Your task to perform on an android device: open app "Messages" Image 0: 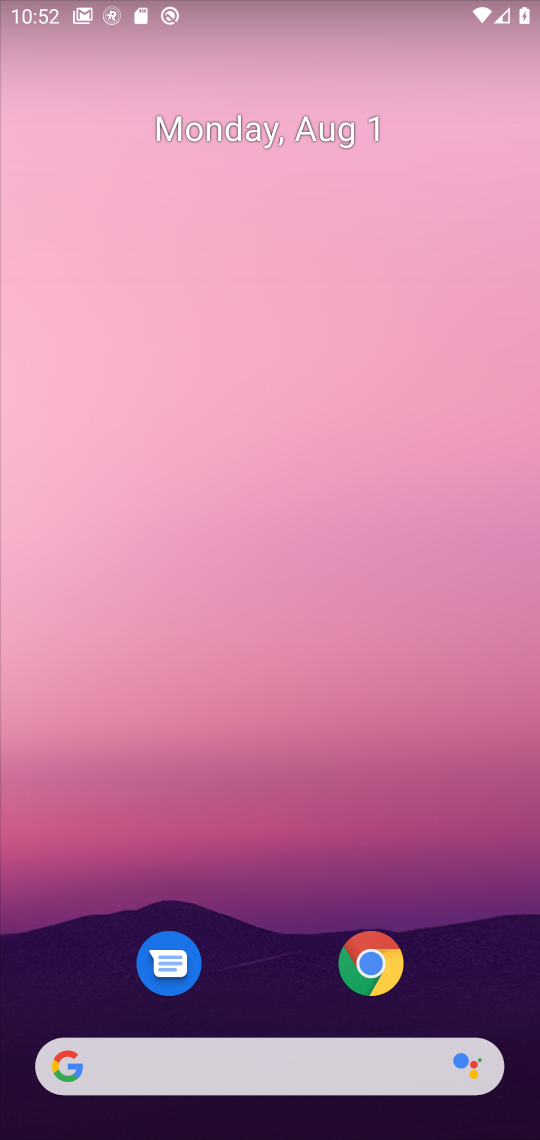
Step 0: drag from (265, 926) to (244, 1039)
Your task to perform on an android device: open app "Messages" Image 1: 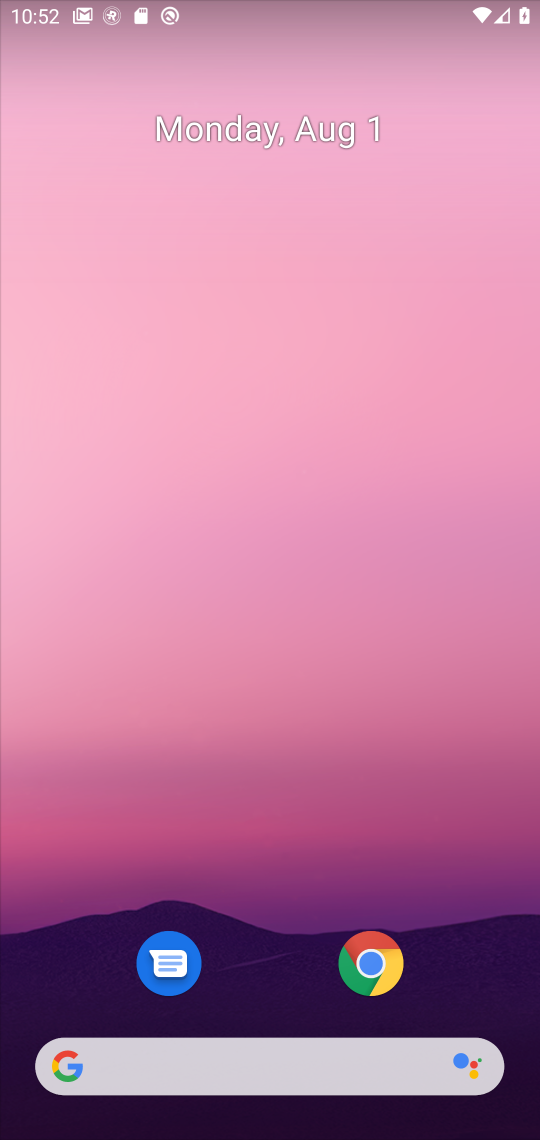
Step 1: click (173, 955)
Your task to perform on an android device: open app "Messages" Image 2: 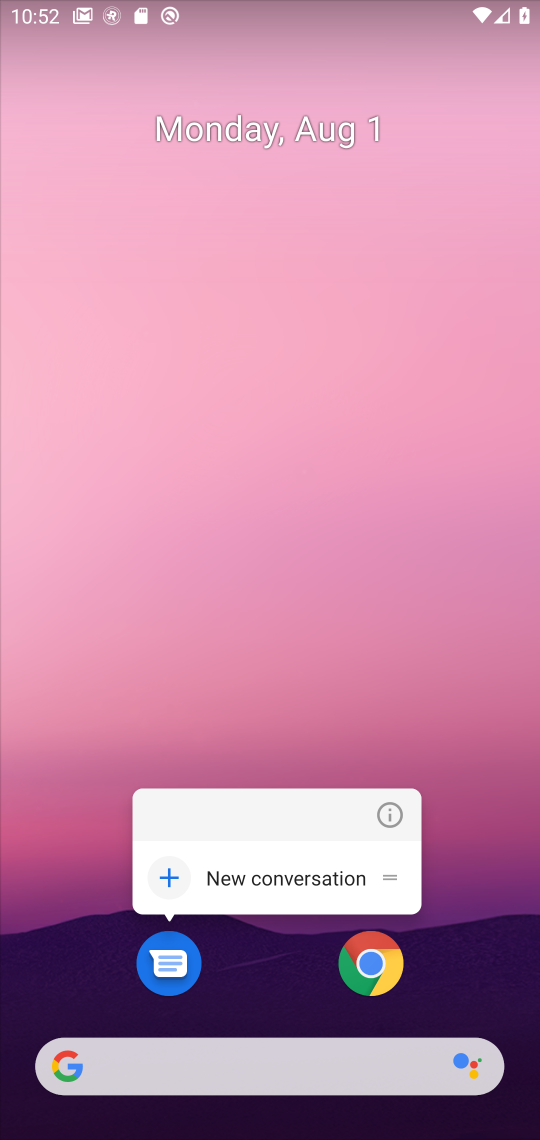
Step 2: click (181, 984)
Your task to perform on an android device: open app "Messages" Image 3: 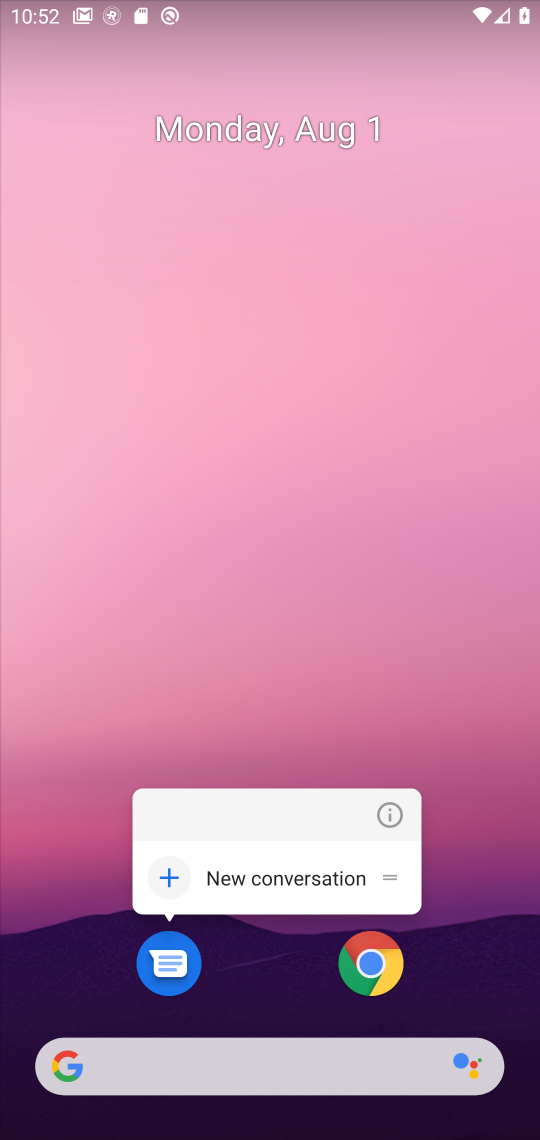
Step 3: click (187, 974)
Your task to perform on an android device: open app "Messages" Image 4: 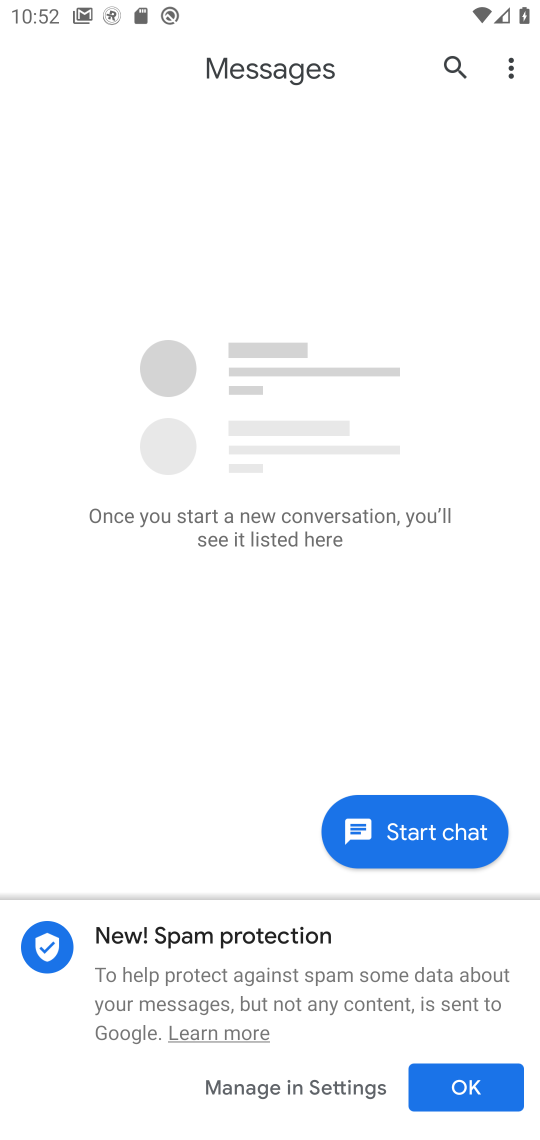
Step 4: click (490, 1083)
Your task to perform on an android device: open app "Messages" Image 5: 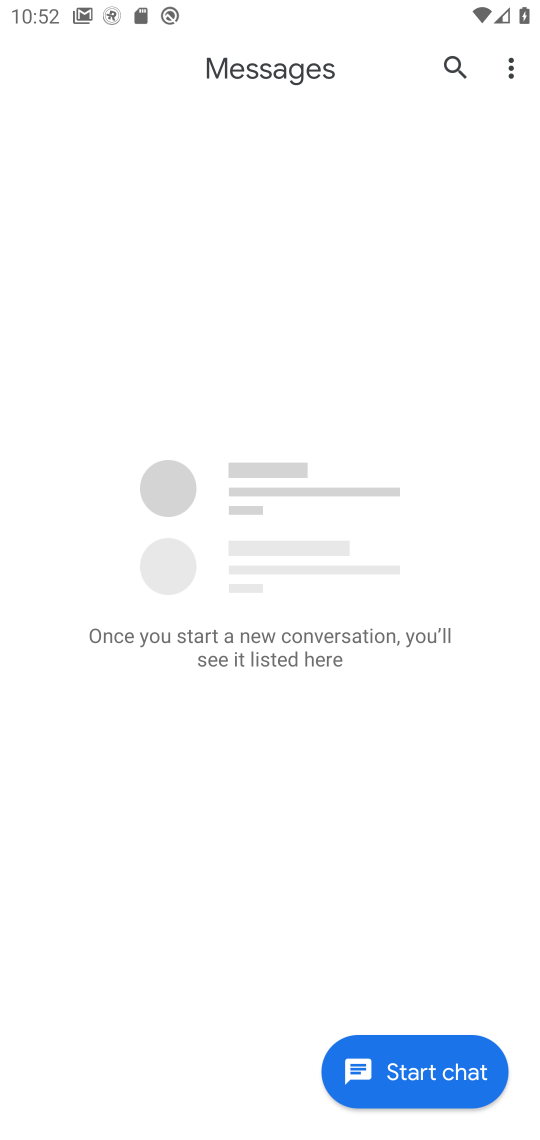
Step 5: task complete